Your task to perform on an android device: turn vacation reply on in the gmail app Image 0: 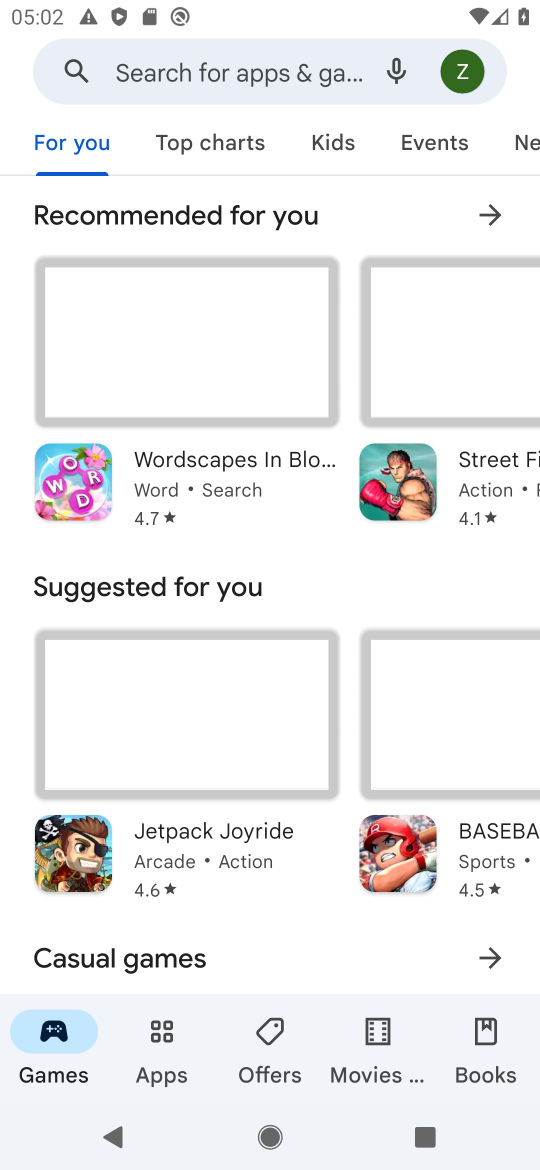
Step 0: press home button
Your task to perform on an android device: turn vacation reply on in the gmail app Image 1: 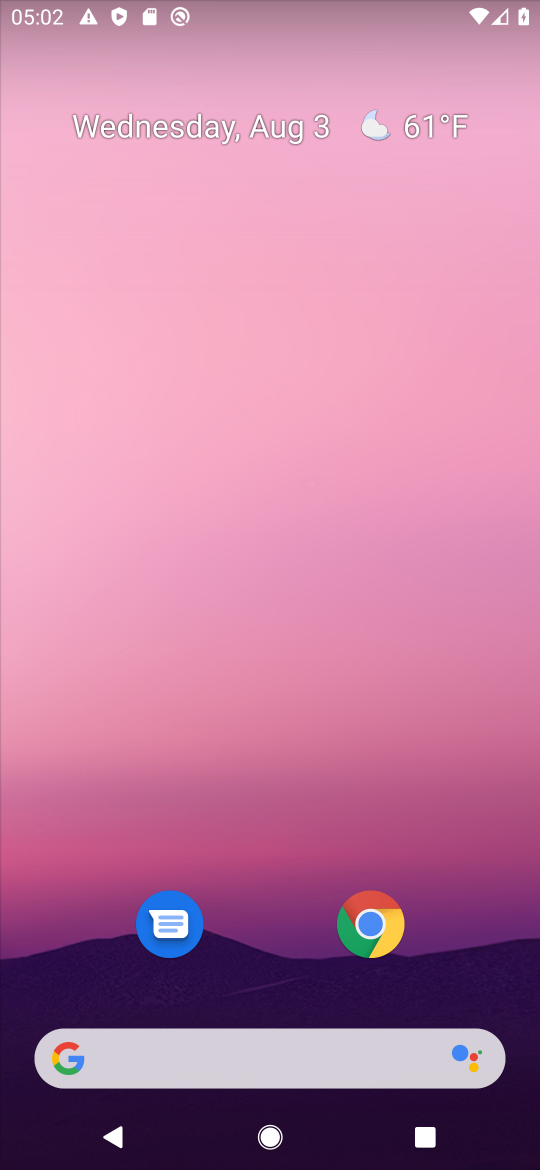
Step 1: drag from (238, 928) to (187, 297)
Your task to perform on an android device: turn vacation reply on in the gmail app Image 2: 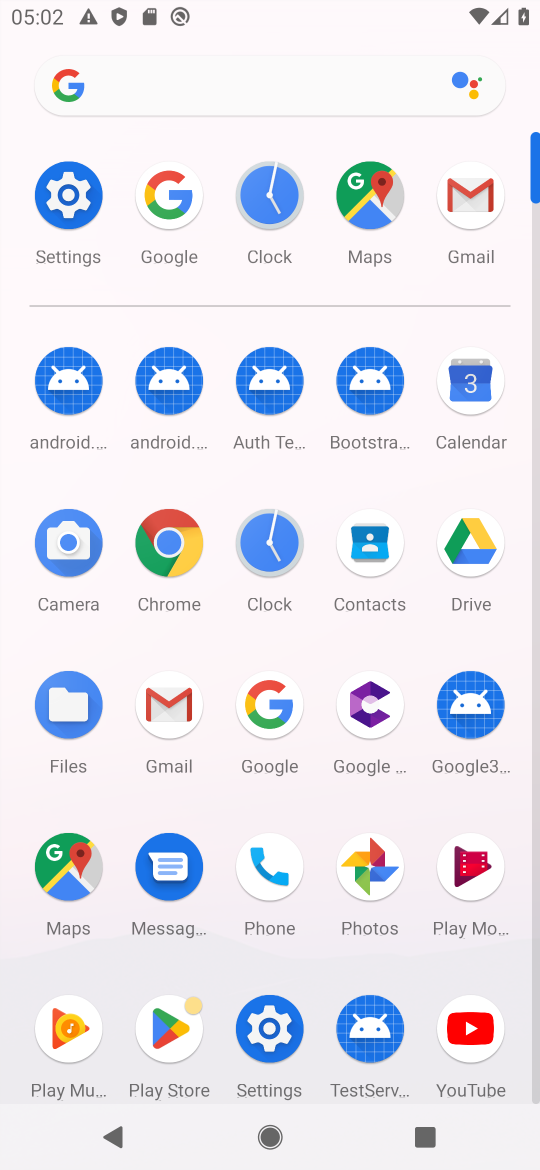
Step 2: click (474, 217)
Your task to perform on an android device: turn vacation reply on in the gmail app Image 3: 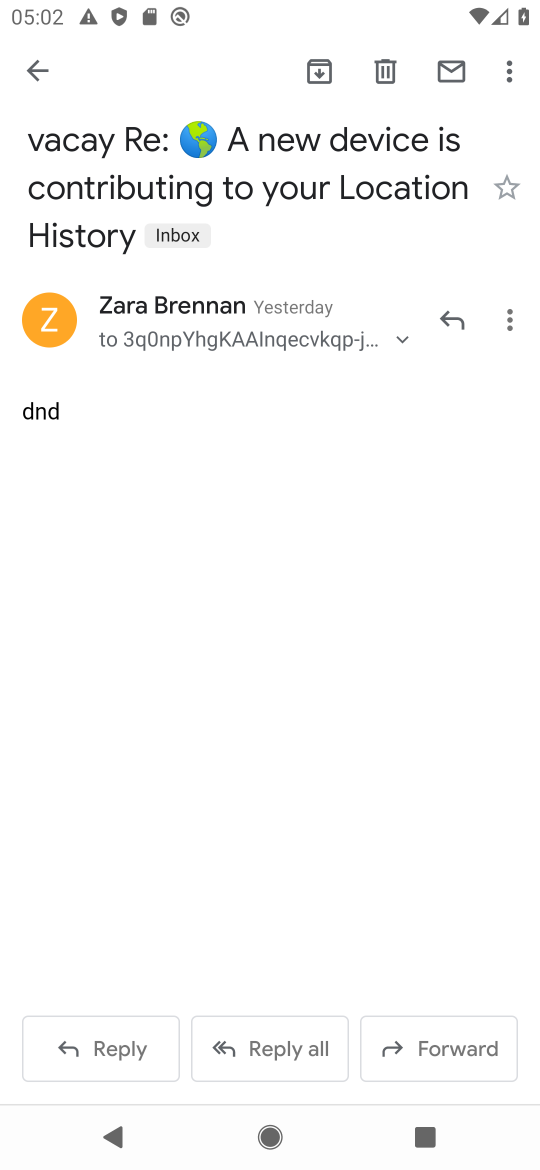
Step 3: click (55, 81)
Your task to perform on an android device: turn vacation reply on in the gmail app Image 4: 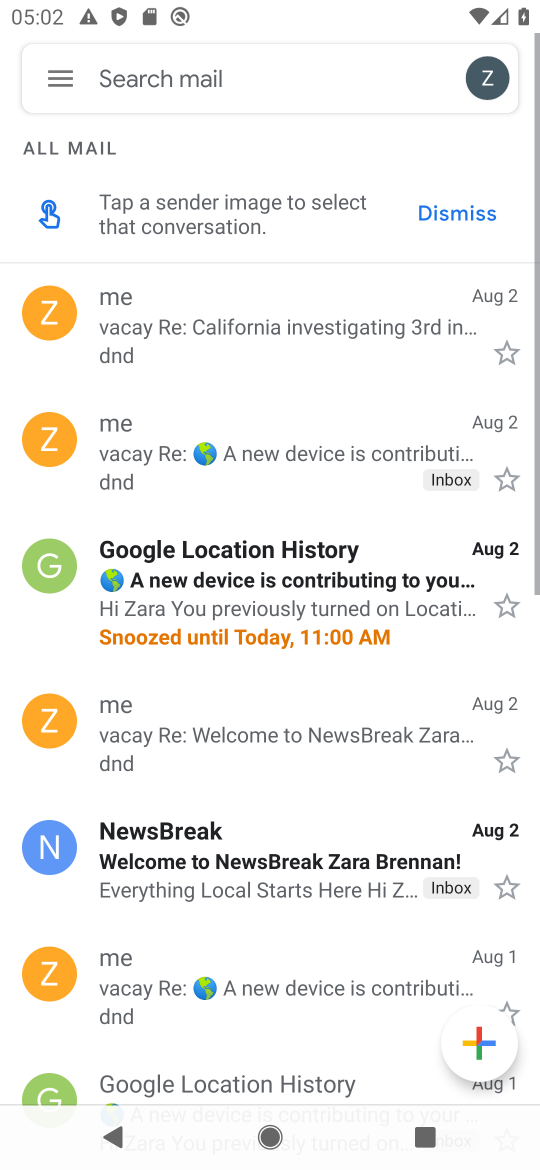
Step 4: click (53, 81)
Your task to perform on an android device: turn vacation reply on in the gmail app Image 5: 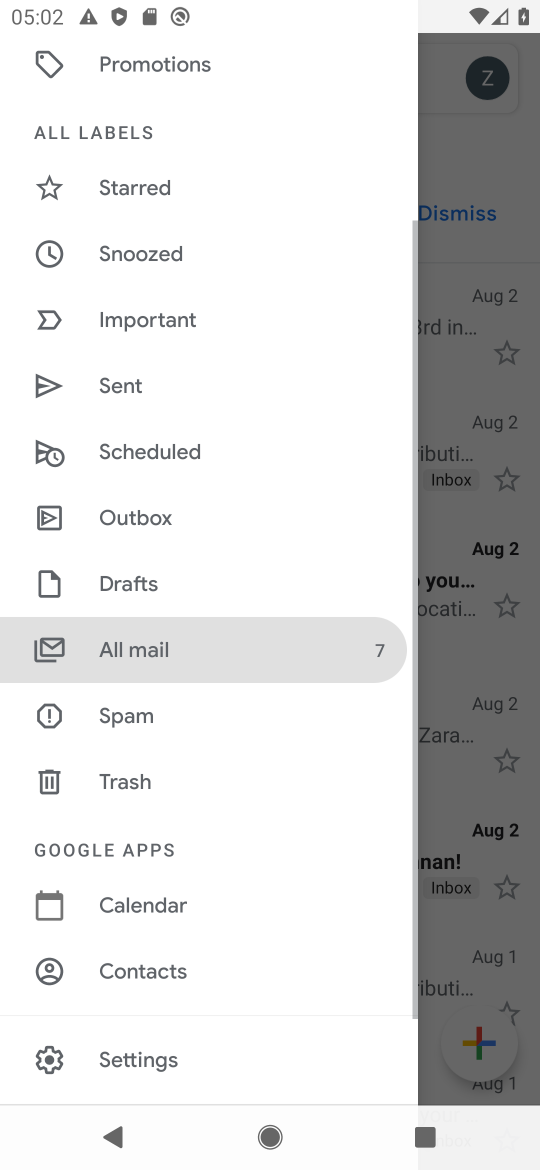
Step 5: click (176, 1042)
Your task to perform on an android device: turn vacation reply on in the gmail app Image 6: 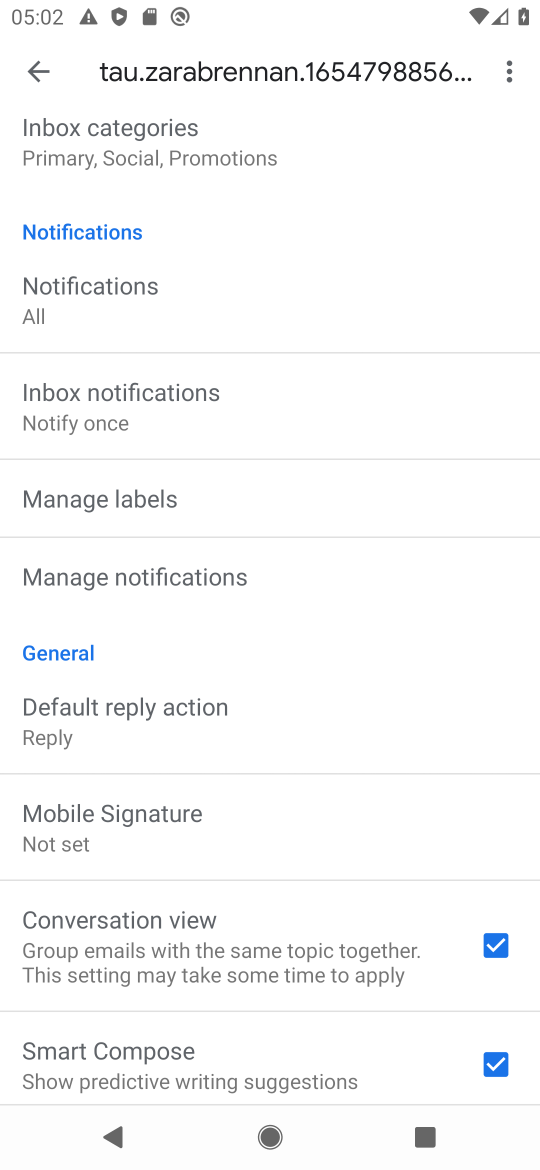
Step 6: drag from (215, 898) to (187, 433)
Your task to perform on an android device: turn vacation reply on in the gmail app Image 7: 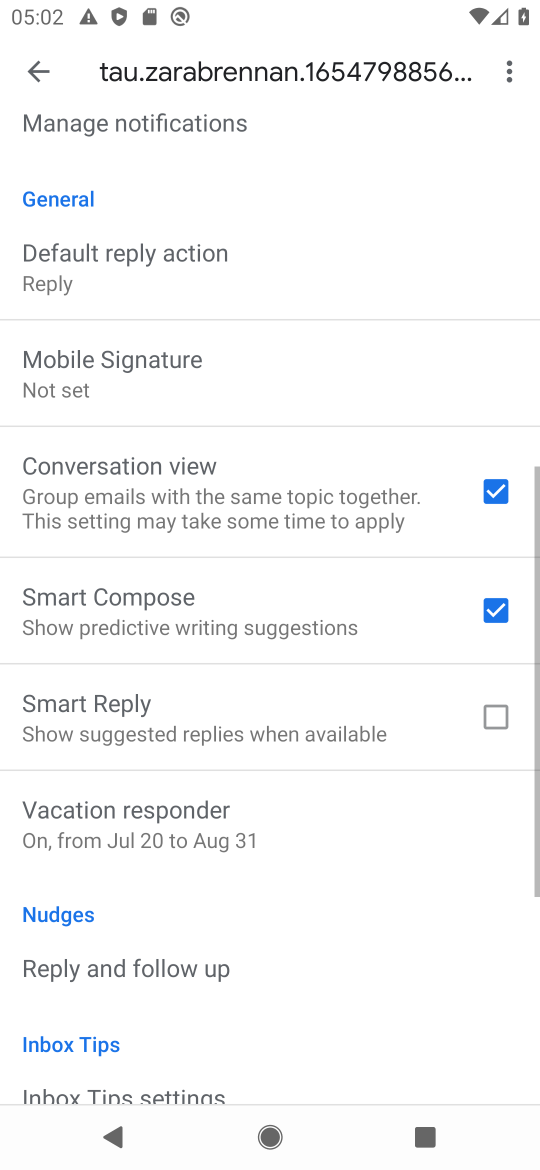
Step 7: click (215, 799)
Your task to perform on an android device: turn vacation reply on in the gmail app Image 8: 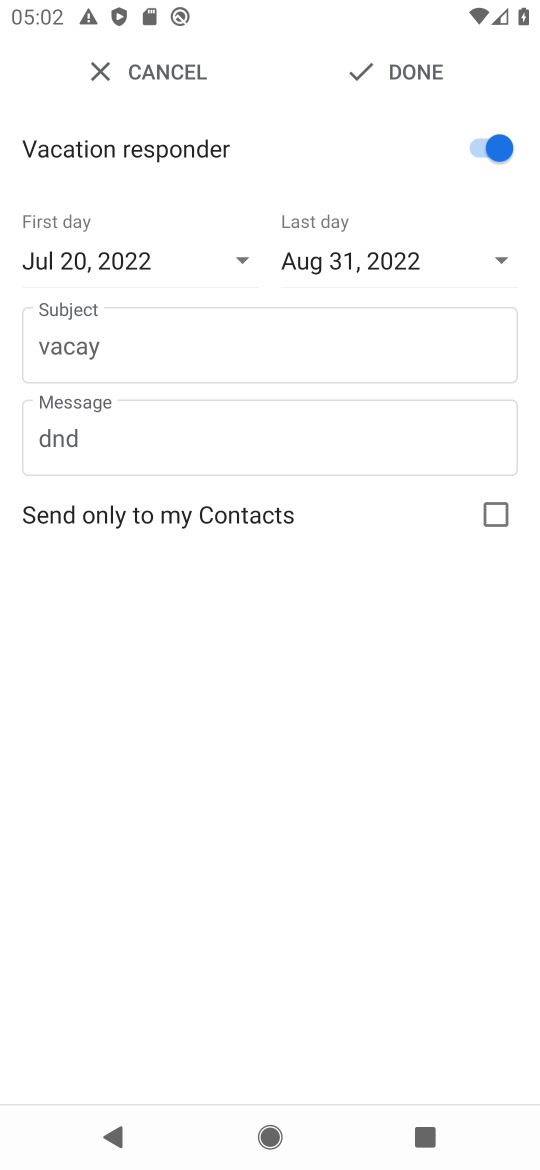
Step 8: task complete